Your task to perform on an android device: turn off improve location accuracy Image 0: 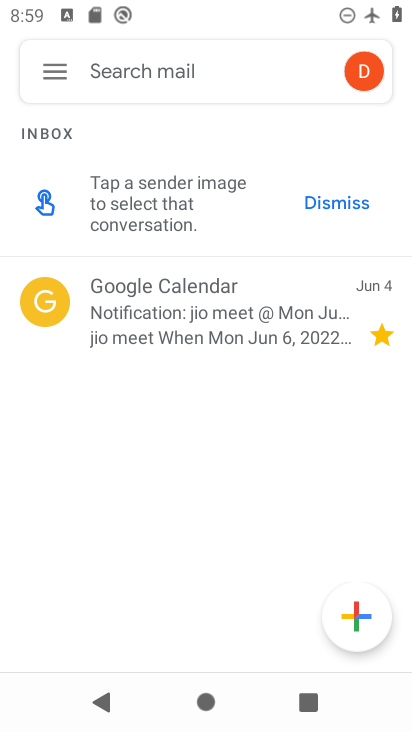
Step 0: press home button
Your task to perform on an android device: turn off improve location accuracy Image 1: 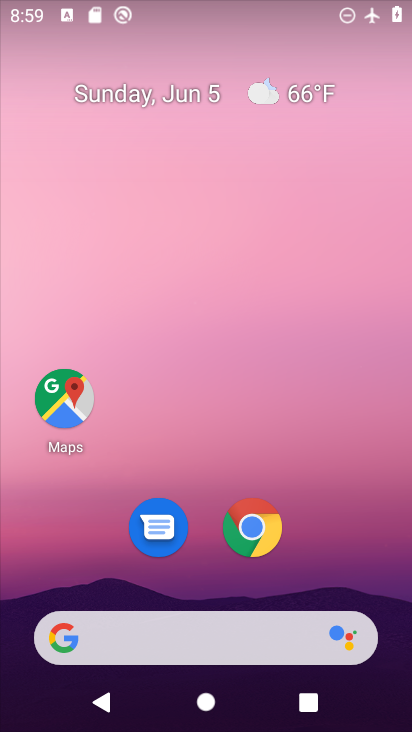
Step 1: drag from (216, 587) to (254, 43)
Your task to perform on an android device: turn off improve location accuracy Image 2: 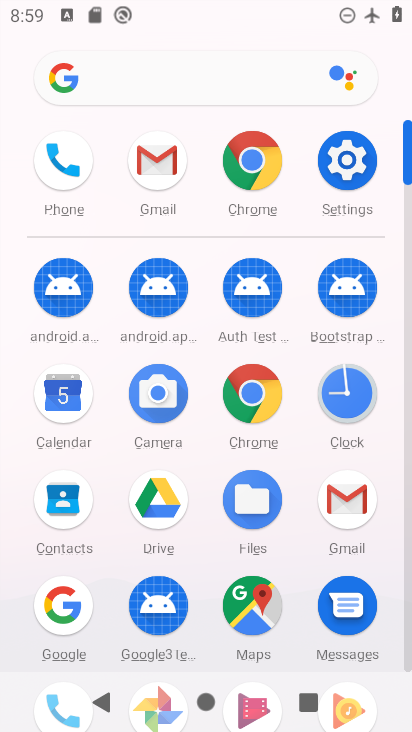
Step 2: click (371, 166)
Your task to perform on an android device: turn off improve location accuracy Image 3: 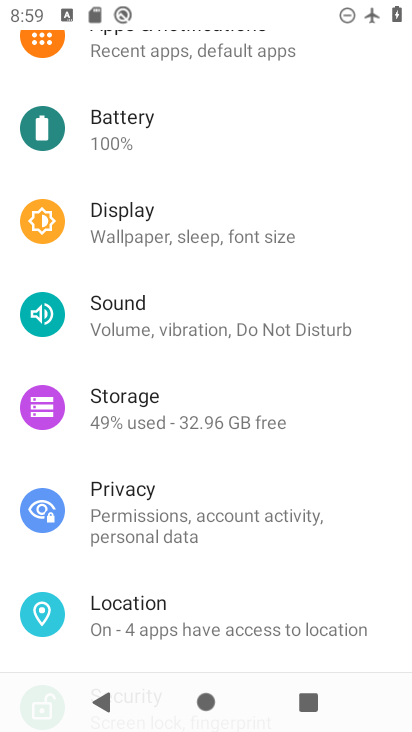
Step 3: click (107, 613)
Your task to perform on an android device: turn off improve location accuracy Image 4: 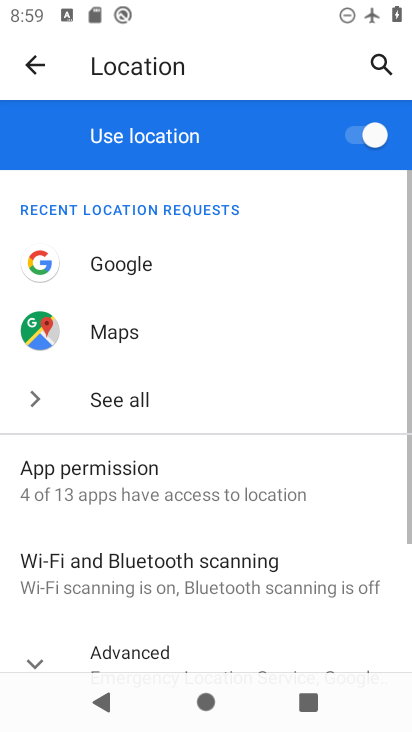
Step 4: drag from (107, 613) to (230, 154)
Your task to perform on an android device: turn off improve location accuracy Image 5: 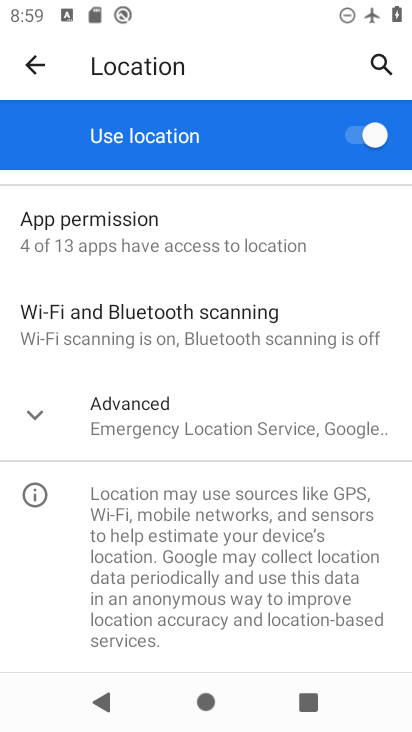
Step 5: click (105, 444)
Your task to perform on an android device: turn off improve location accuracy Image 6: 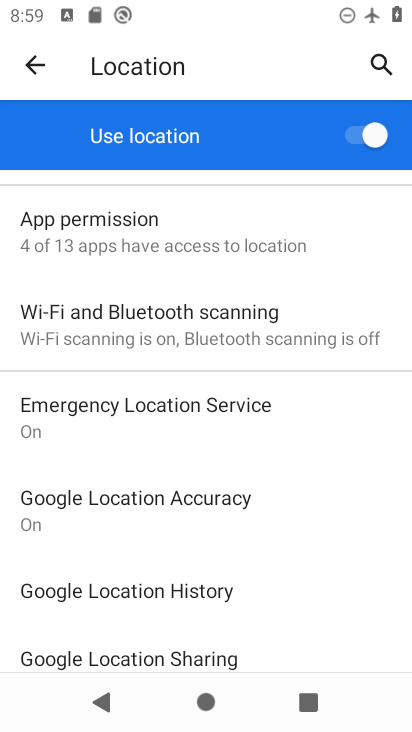
Step 6: click (105, 519)
Your task to perform on an android device: turn off improve location accuracy Image 7: 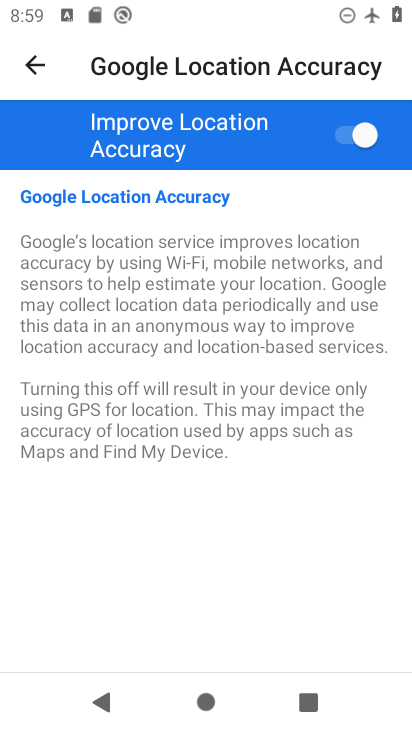
Step 7: click (348, 142)
Your task to perform on an android device: turn off improve location accuracy Image 8: 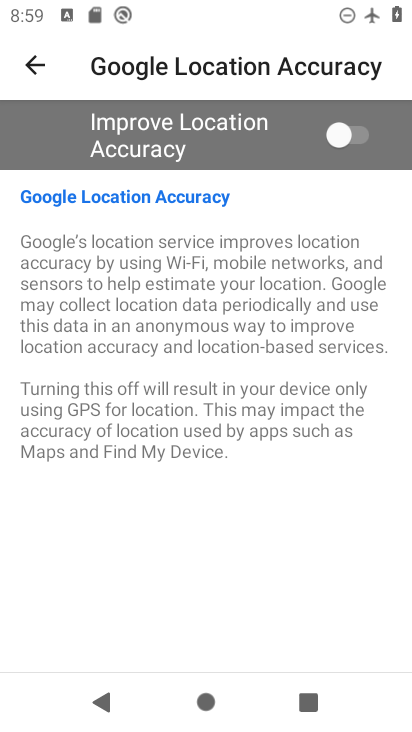
Step 8: task complete